Your task to perform on an android device: What's the price of the new iPhone Image 0: 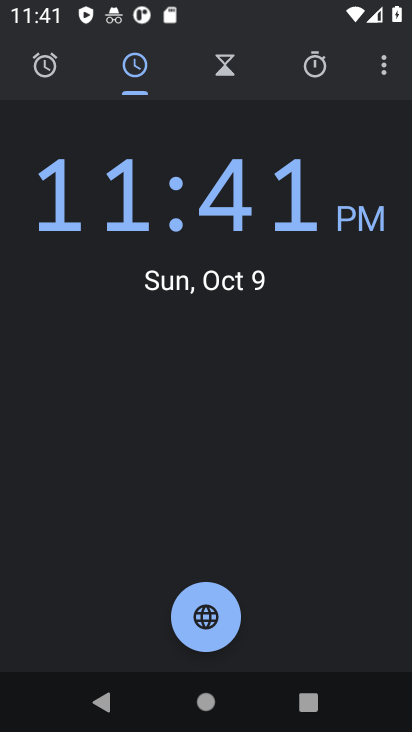
Step 0: press home button
Your task to perform on an android device: What's the price of the new iPhone Image 1: 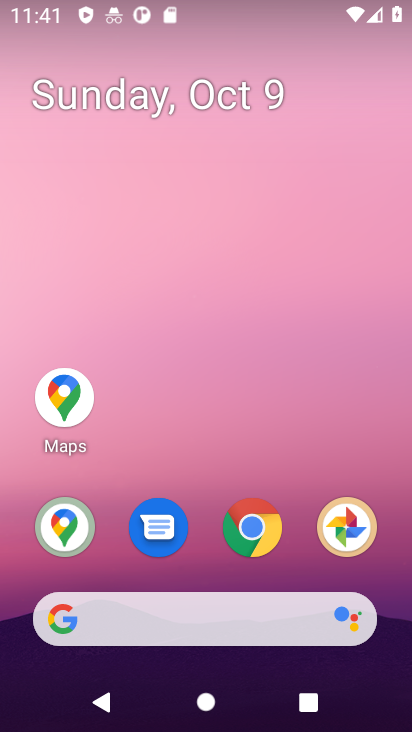
Step 1: click (258, 530)
Your task to perform on an android device: What's the price of the new iPhone Image 2: 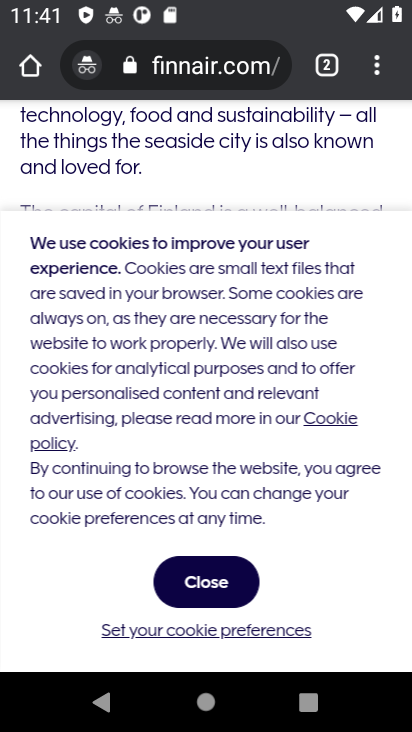
Step 2: click (168, 76)
Your task to perform on an android device: What's the price of the new iPhone Image 3: 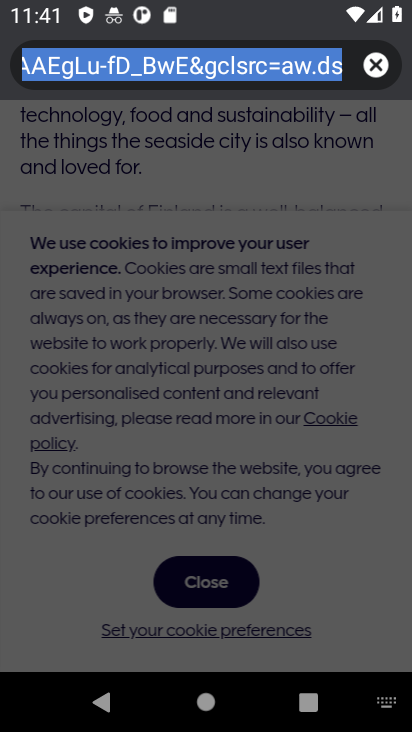
Step 3: type "What's the price of the new iPhone"
Your task to perform on an android device: What's the price of the new iPhone Image 4: 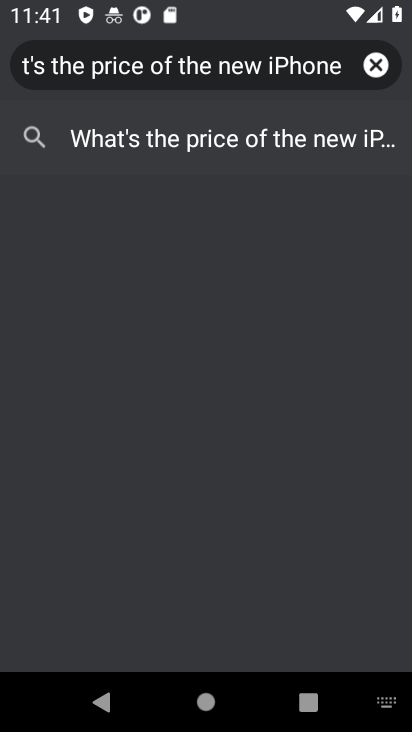
Step 4: click (256, 140)
Your task to perform on an android device: What's the price of the new iPhone Image 5: 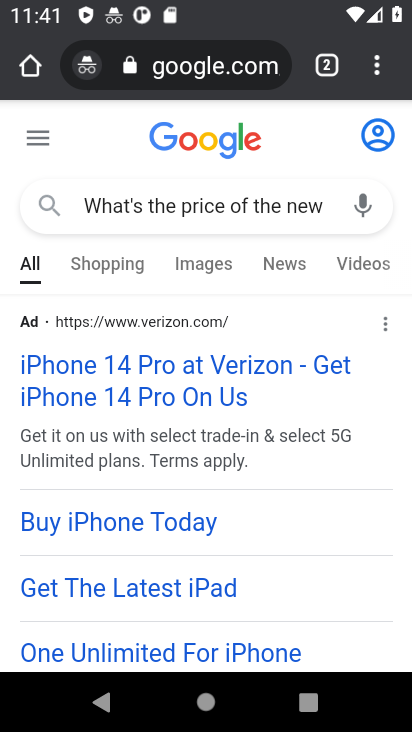
Step 5: click (229, 378)
Your task to perform on an android device: What's the price of the new iPhone Image 6: 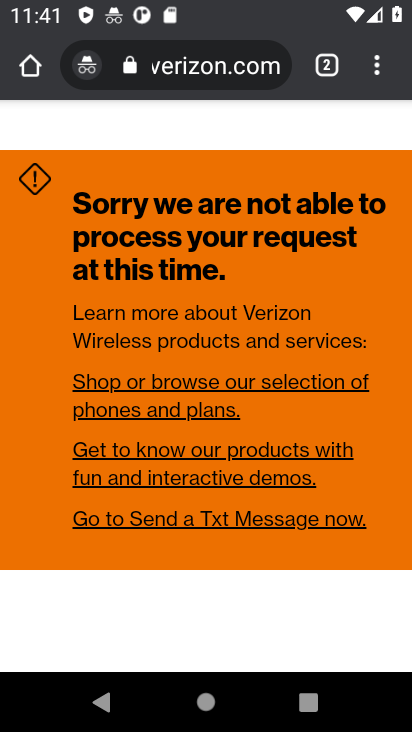
Step 6: task complete